Your task to perform on an android device: Open Chrome and go to settings Image 0: 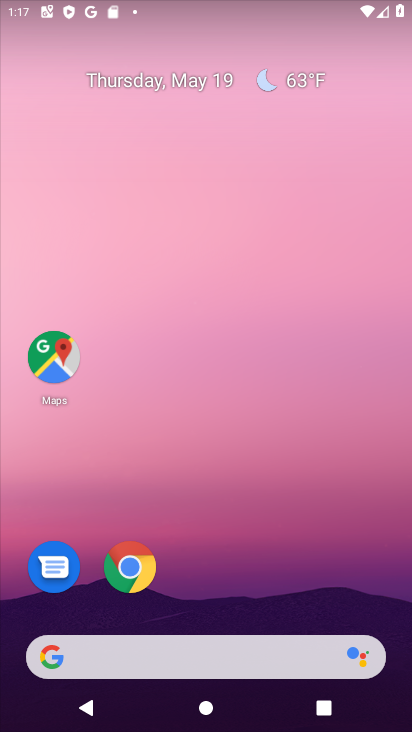
Step 0: drag from (291, 525) to (324, 75)
Your task to perform on an android device: Open Chrome and go to settings Image 1: 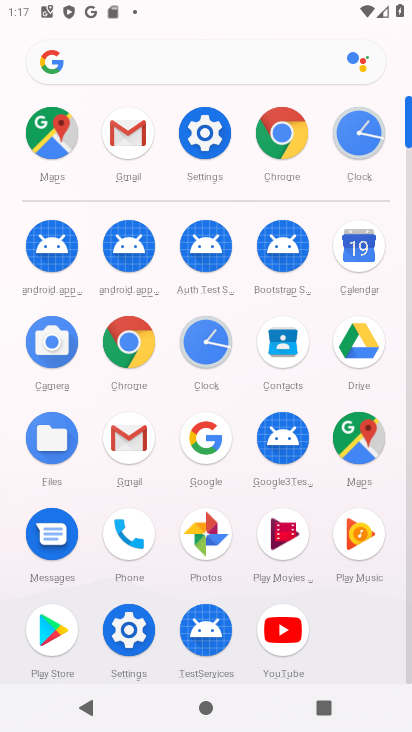
Step 1: click (290, 140)
Your task to perform on an android device: Open Chrome and go to settings Image 2: 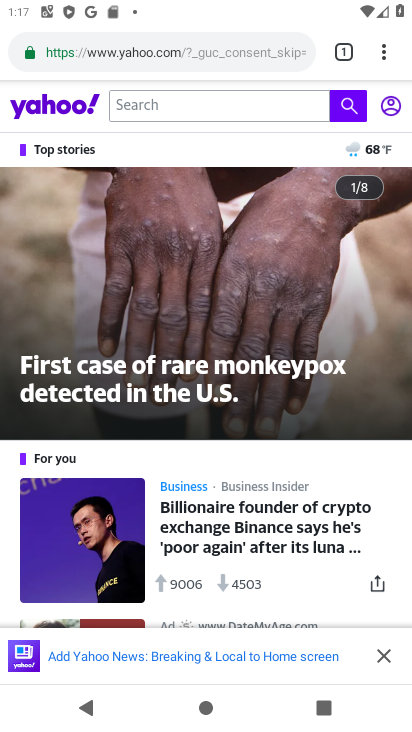
Step 2: task complete